Your task to perform on an android device: turn pop-ups off in chrome Image 0: 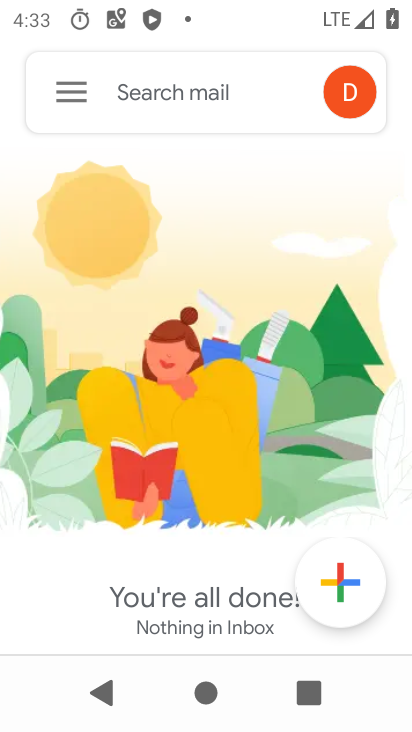
Step 0: press home button
Your task to perform on an android device: turn pop-ups off in chrome Image 1: 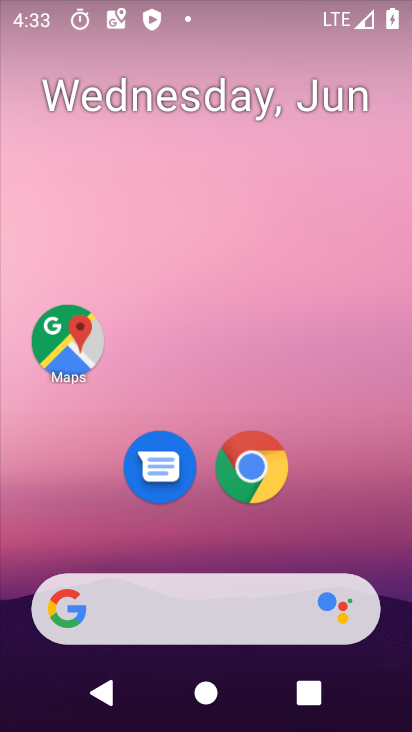
Step 1: click (250, 469)
Your task to perform on an android device: turn pop-ups off in chrome Image 2: 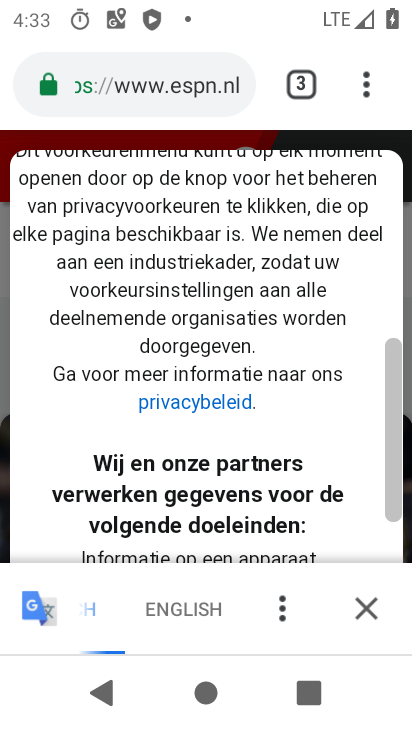
Step 2: click (358, 81)
Your task to perform on an android device: turn pop-ups off in chrome Image 3: 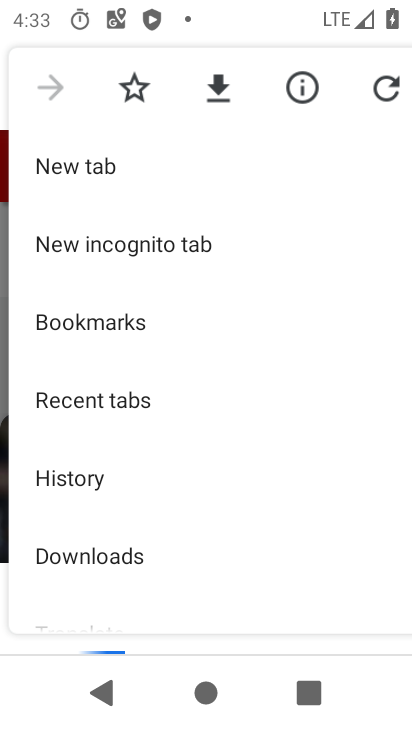
Step 3: drag from (188, 486) to (156, 152)
Your task to perform on an android device: turn pop-ups off in chrome Image 4: 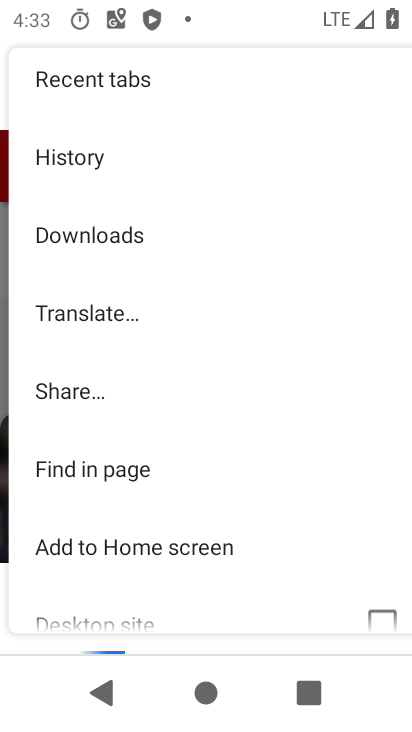
Step 4: drag from (206, 516) to (188, 214)
Your task to perform on an android device: turn pop-ups off in chrome Image 5: 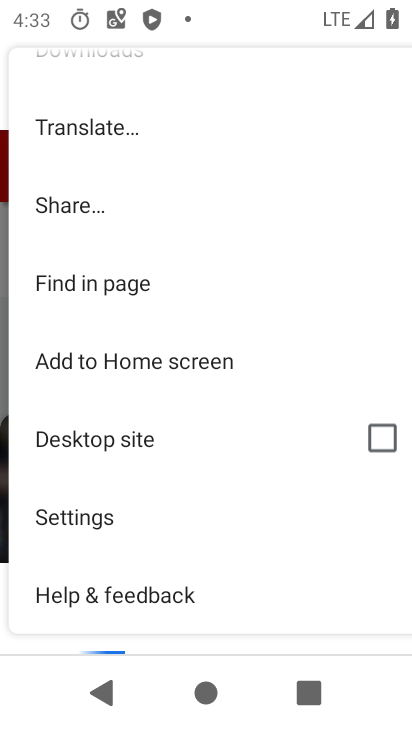
Step 5: click (130, 522)
Your task to perform on an android device: turn pop-ups off in chrome Image 6: 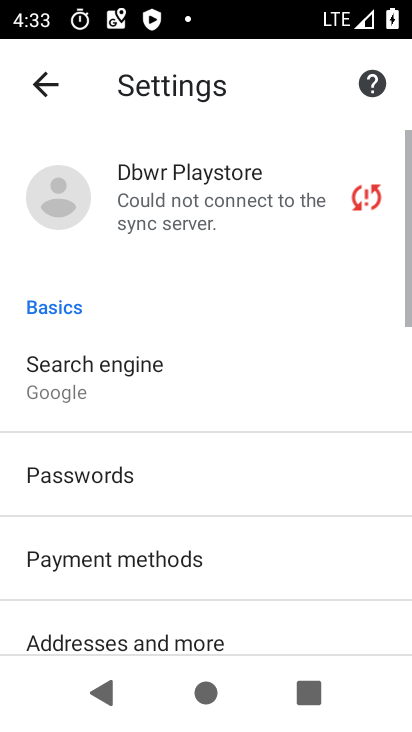
Step 6: drag from (242, 497) to (255, 57)
Your task to perform on an android device: turn pop-ups off in chrome Image 7: 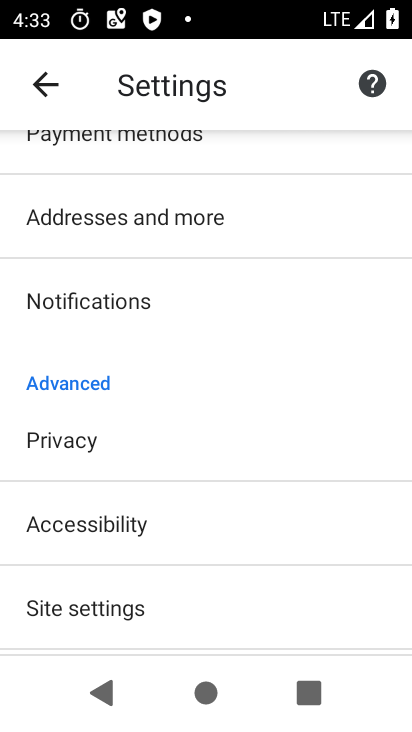
Step 7: drag from (163, 523) to (152, 192)
Your task to perform on an android device: turn pop-ups off in chrome Image 8: 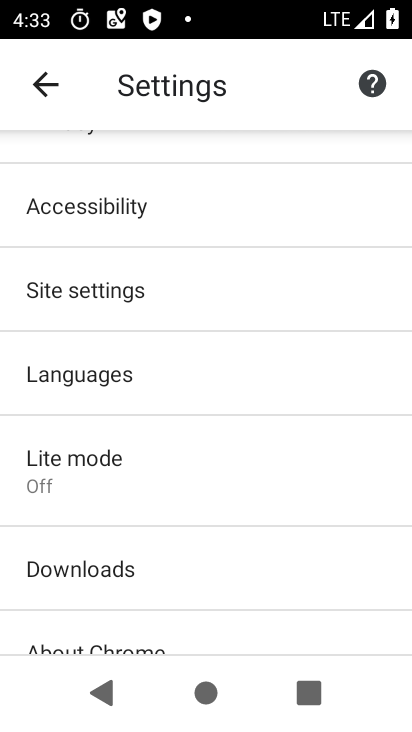
Step 8: click (121, 314)
Your task to perform on an android device: turn pop-ups off in chrome Image 9: 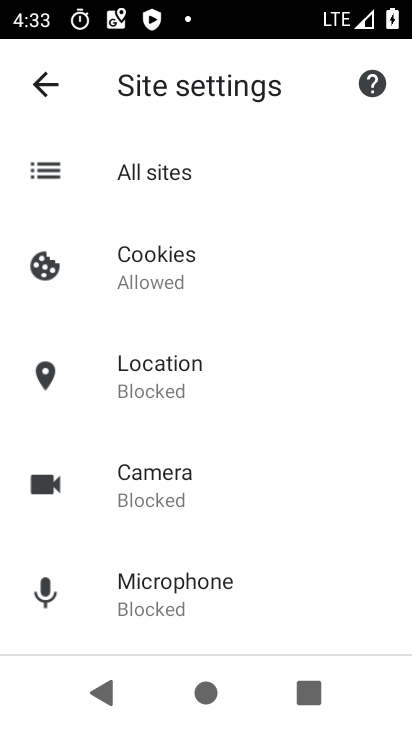
Step 9: drag from (216, 450) to (227, 214)
Your task to perform on an android device: turn pop-ups off in chrome Image 10: 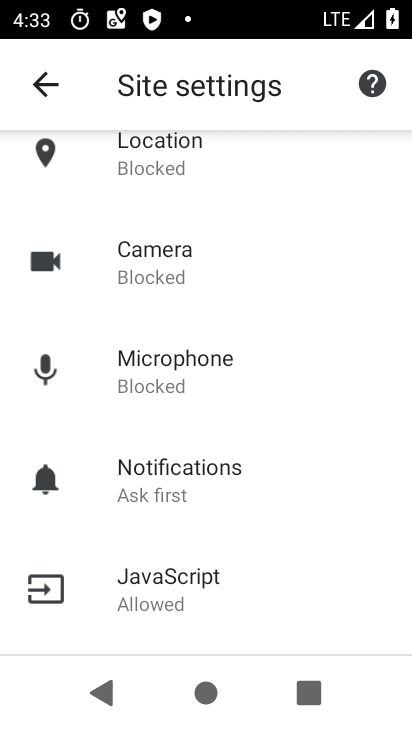
Step 10: drag from (224, 497) to (203, 169)
Your task to perform on an android device: turn pop-ups off in chrome Image 11: 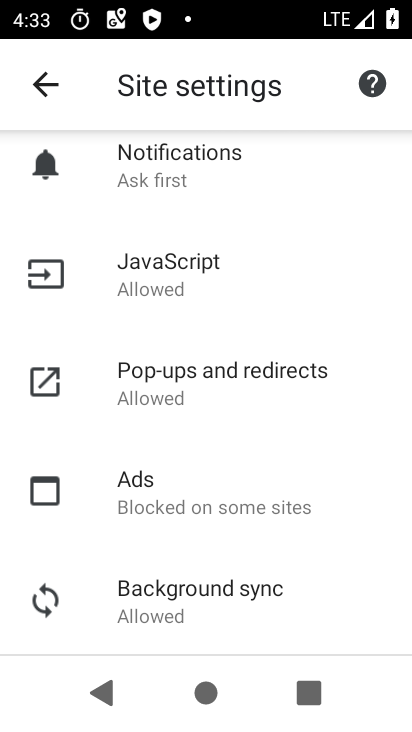
Step 11: click (179, 381)
Your task to perform on an android device: turn pop-ups off in chrome Image 12: 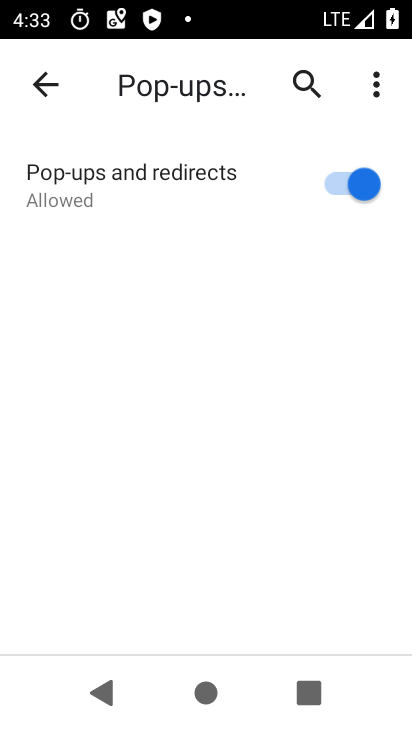
Step 12: click (351, 189)
Your task to perform on an android device: turn pop-ups off in chrome Image 13: 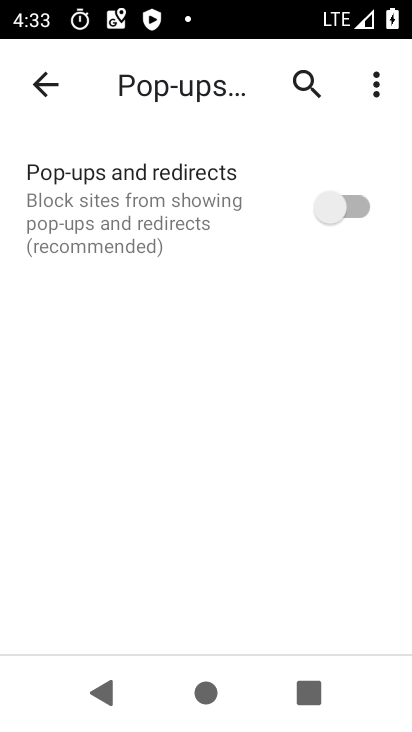
Step 13: task complete